Your task to perform on an android device: Is it going to rain this weekend? Image 0: 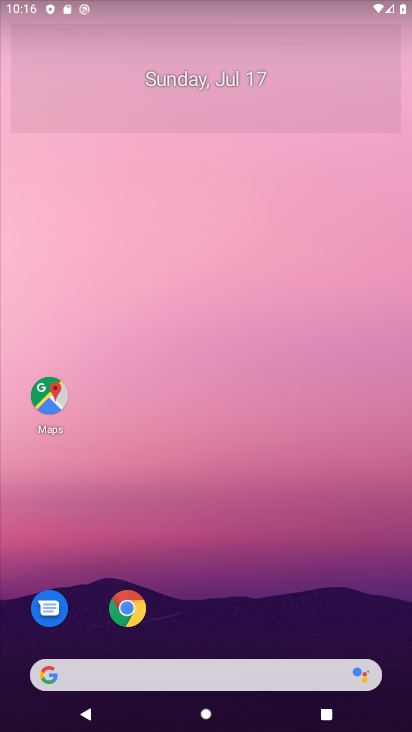
Step 0: drag from (30, 697) to (122, 262)
Your task to perform on an android device: Is it going to rain this weekend? Image 1: 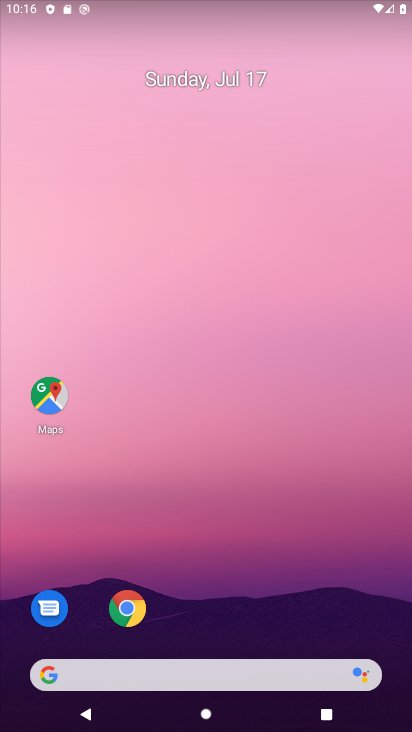
Step 1: click (89, 671)
Your task to perform on an android device: Is it going to rain this weekend? Image 2: 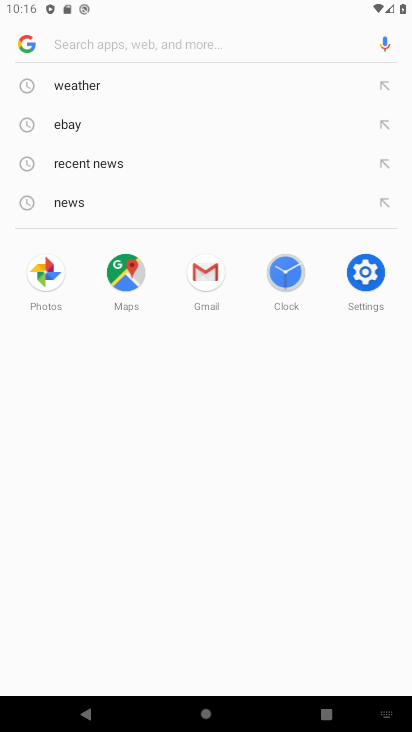
Step 2: type "Is it going to rain this weekend?"
Your task to perform on an android device: Is it going to rain this weekend? Image 3: 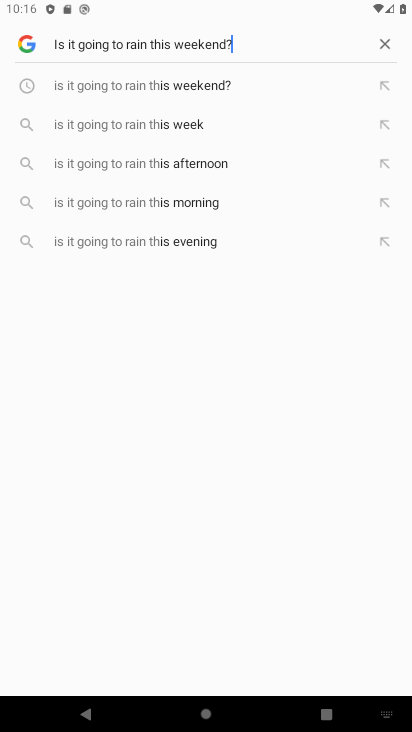
Step 3: type ""
Your task to perform on an android device: Is it going to rain this weekend? Image 4: 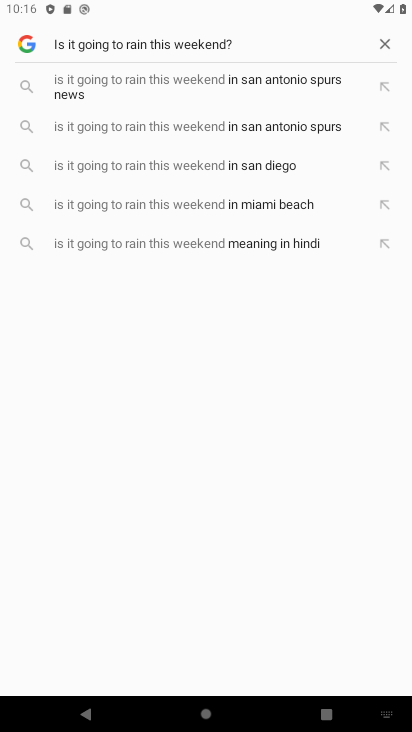
Step 4: type ""
Your task to perform on an android device: Is it going to rain this weekend? Image 5: 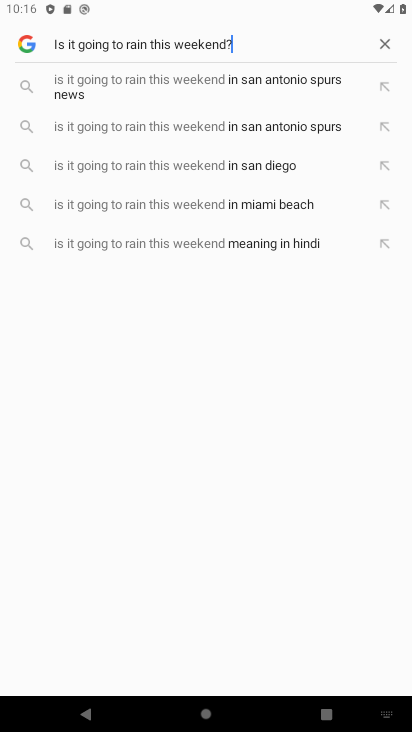
Step 5: type ""
Your task to perform on an android device: Is it going to rain this weekend? Image 6: 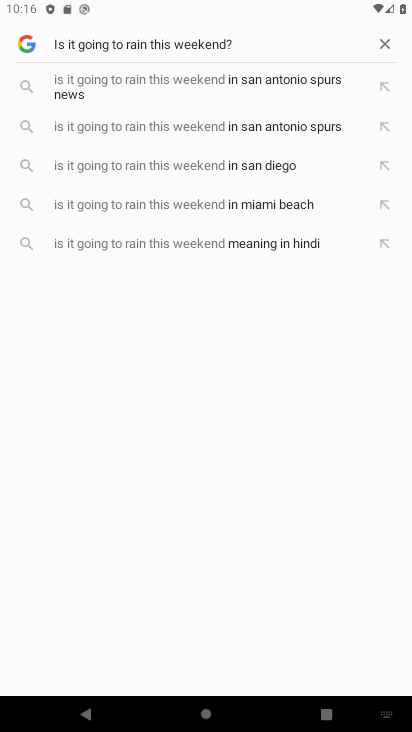
Step 6: task complete